Your task to perform on an android device: Go to ESPN.com Image 0: 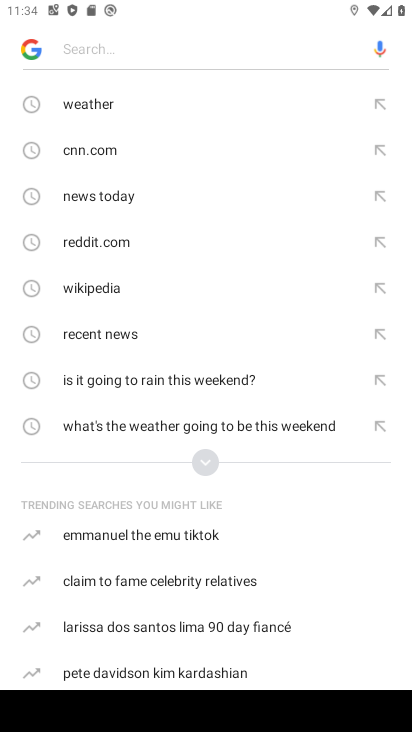
Step 0: press home button
Your task to perform on an android device: Go to ESPN.com Image 1: 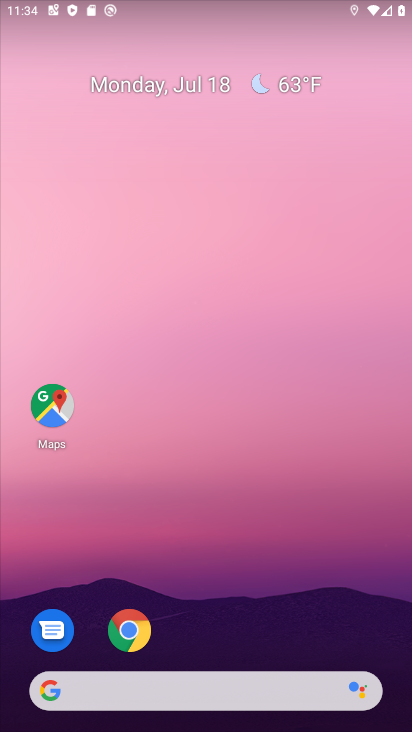
Step 1: drag from (267, 642) to (230, 142)
Your task to perform on an android device: Go to ESPN.com Image 2: 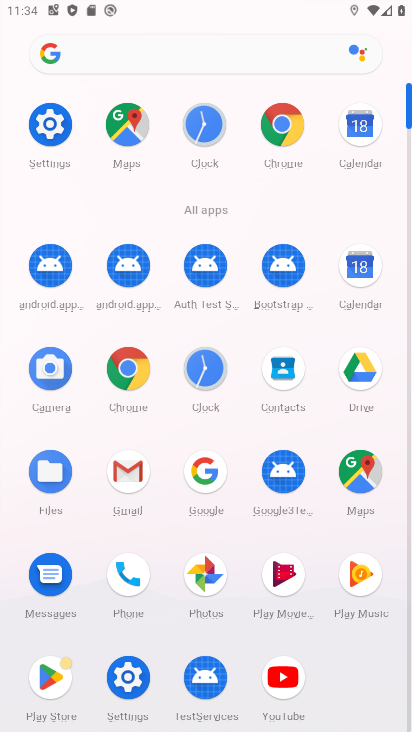
Step 2: click (286, 123)
Your task to perform on an android device: Go to ESPN.com Image 3: 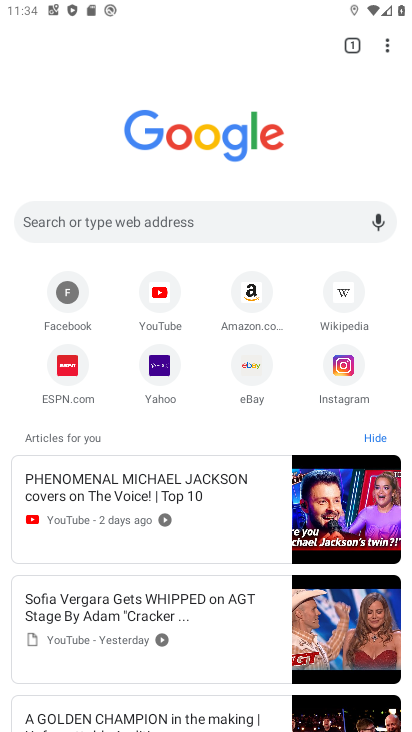
Step 3: click (72, 373)
Your task to perform on an android device: Go to ESPN.com Image 4: 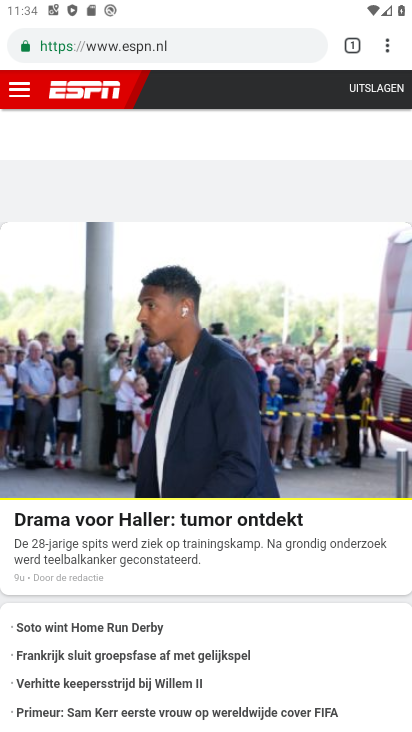
Step 4: task complete